Your task to perform on an android device: allow cookies in the chrome app Image 0: 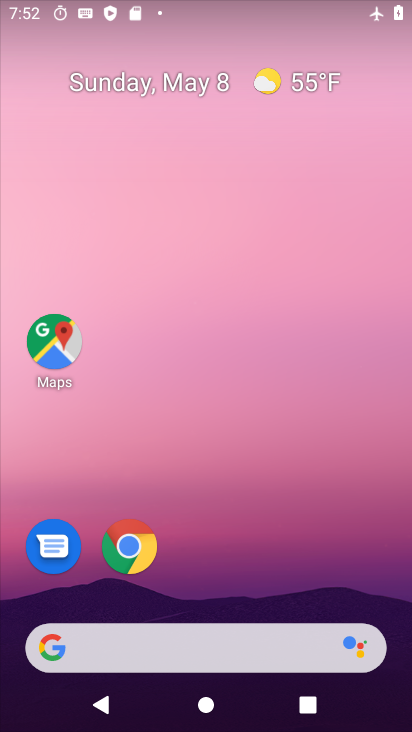
Step 0: click (125, 538)
Your task to perform on an android device: allow cookies in the chrome app Image 1: 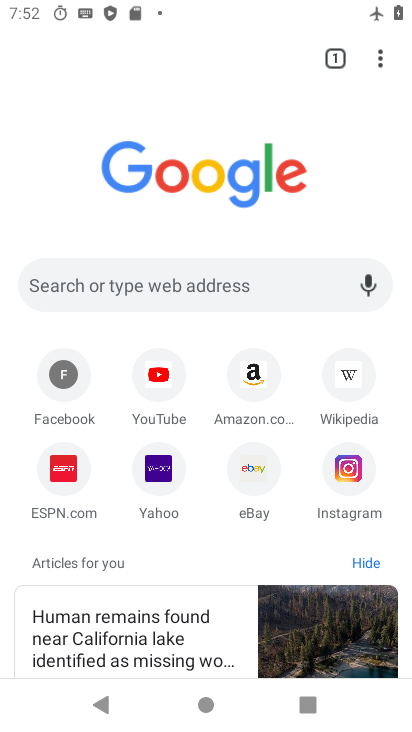
Step 1: click (383, 57)
Your task to perform on an android device: allow cookies in the chrome app Image 2: 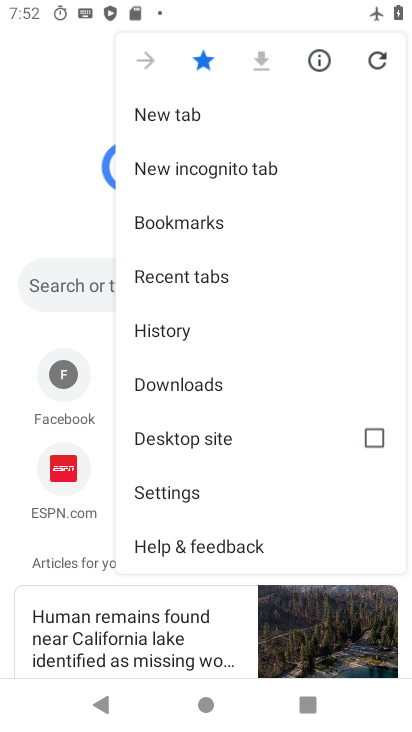
Step 2: click (181, 487)
Your task to perform on an android device: allow cookies in the chrome app Image 3: 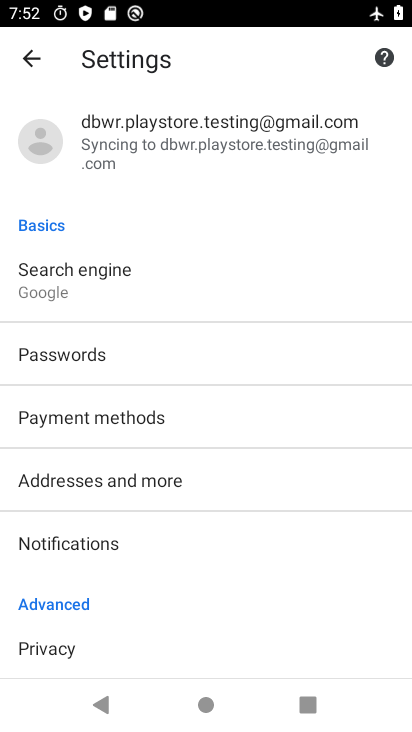
Step 3: drag from (181, 487) to (197, 269)
Your task to perform on an android device: allow cookies in the chrome app Image 4: 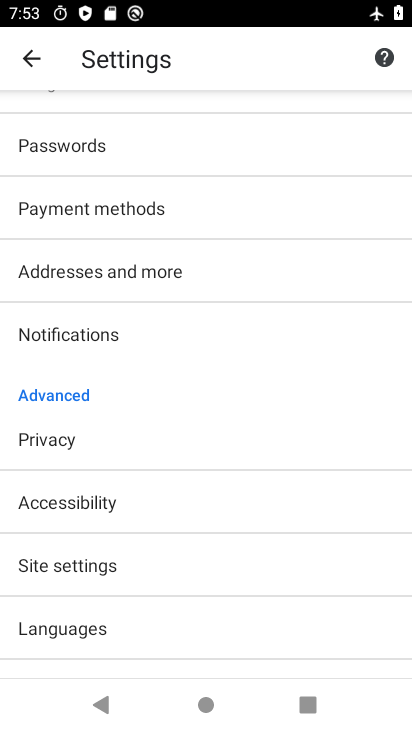
Step 4: click (170, 560)
Your task to perform on an android device: allow cookies in the chrome app Image 5: 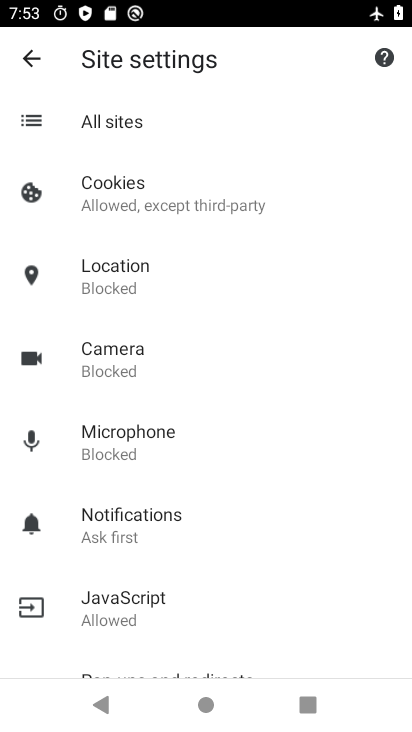
Step 5: click (207, 200)
Your task to perform on an android device: allow cookies in the chrome app Image 6: 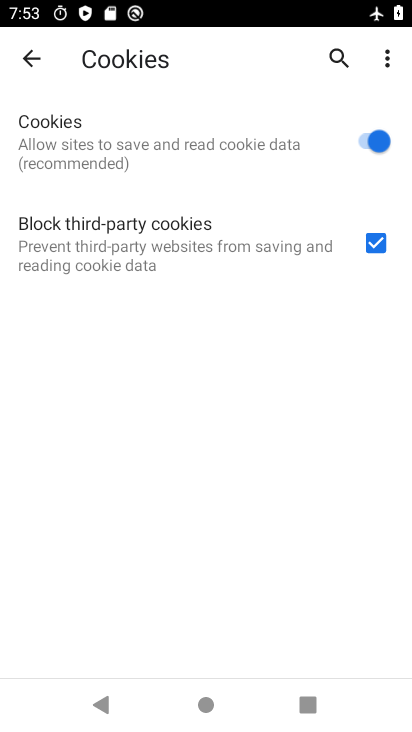
Step 6: task complete